Your task to perform on an android device: see creations saved in the google photos Image 0: 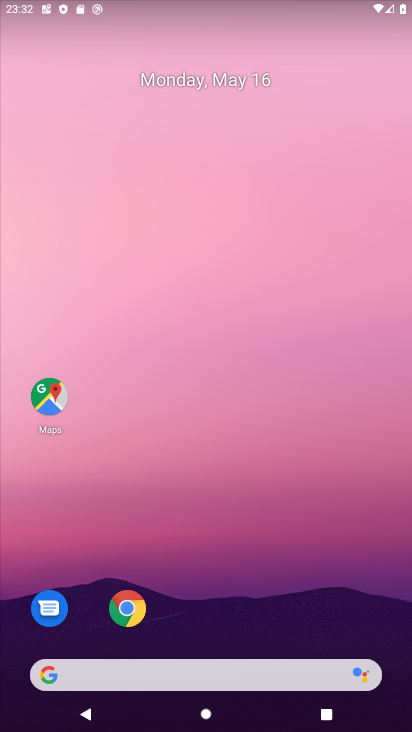
Step 0: drag from (242, 654) to (263, 139)
Your task to perform on an android device: see creations saved in the google photos Image 1: 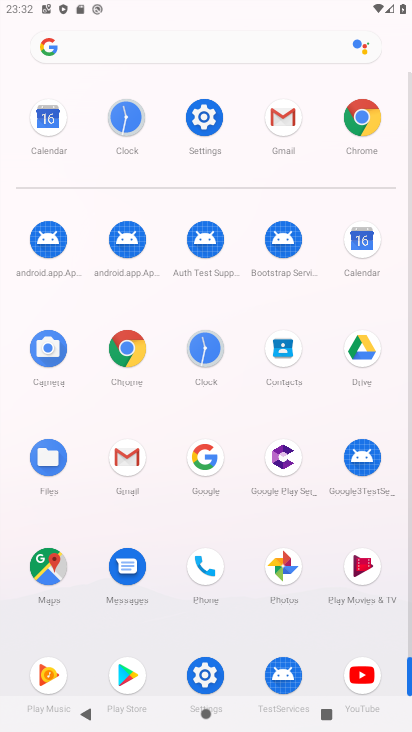
Step 1: click (284, 563)
Your task to perform on an android device: see creations saved in the google photos Image 2: 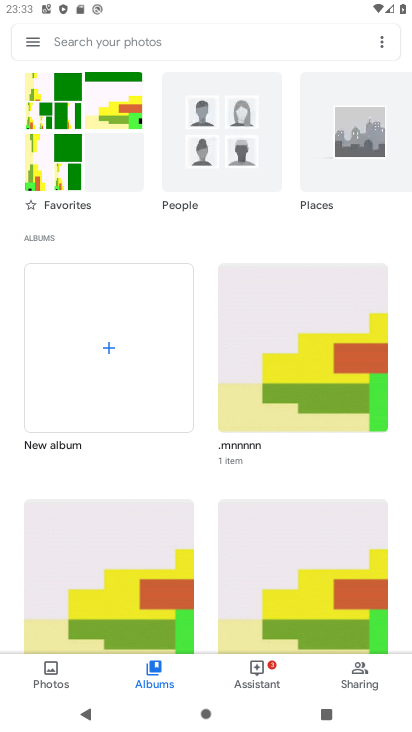
Step 2: click (156, 666)
Your task to perform on an android device: see creations saved in the google photos Image 3: 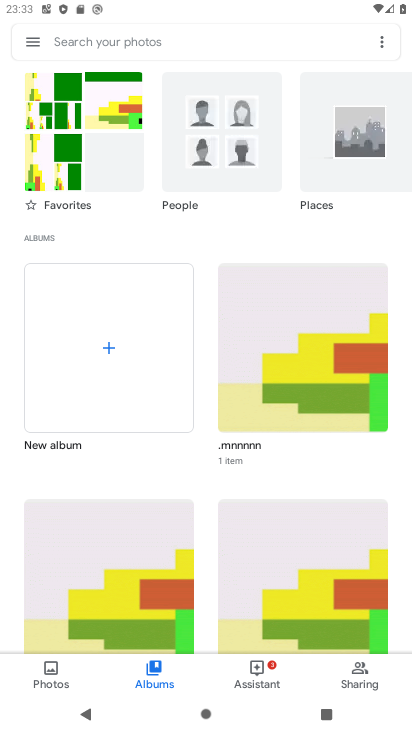
Step 3: click (161, 40)
Your task to perform on an android device: see creations saved in the google photos Image 4: 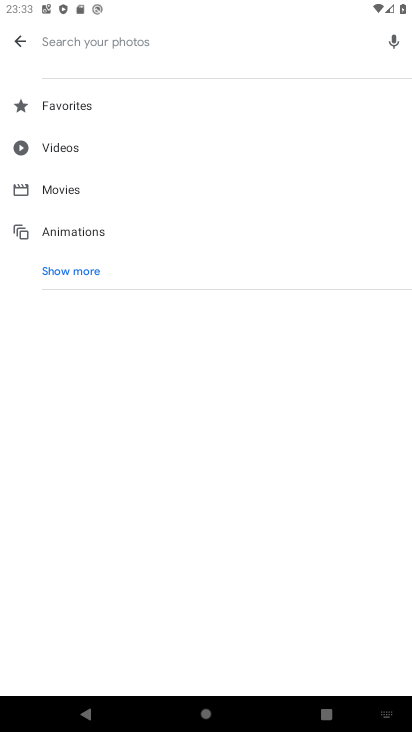
Step 4: click (88, 271)
Your task to perform on an android device: see creations saved in the google photos Image 5: 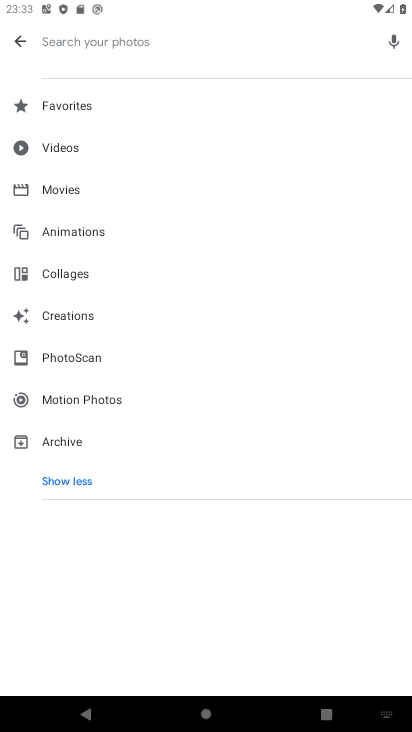
Step 5: click (63, 319)
Your task to perform on an android device: see creations saved in the google photos Image 6: 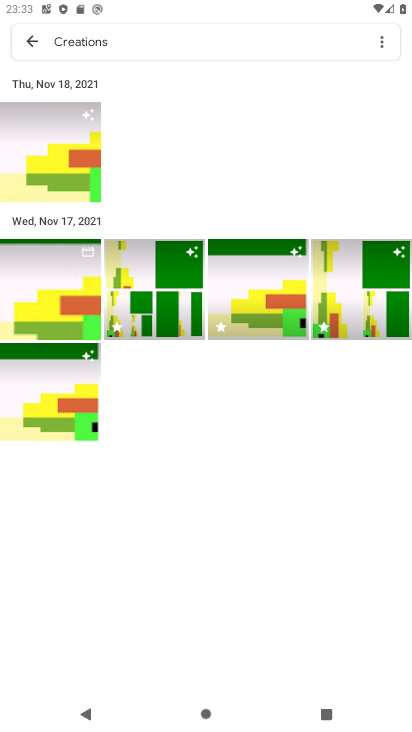
Step 6: task complete